Your task to perform on an android device: move an email to a new category in the gmail app Image 0: 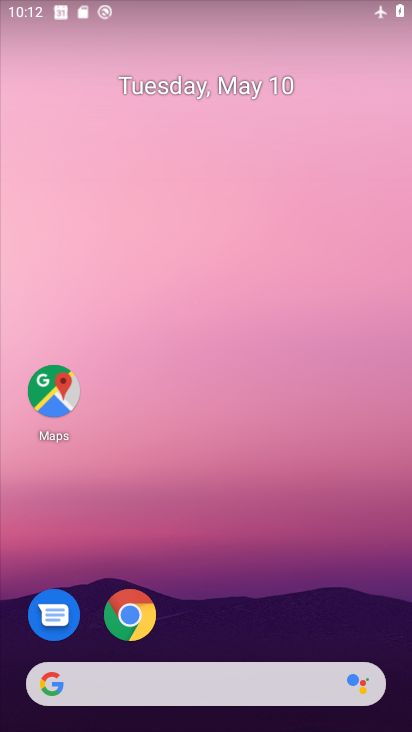
Step 0: click (200, 148)
Your task to perform on an android device: move an email to a new category in the gmail app Image 1: 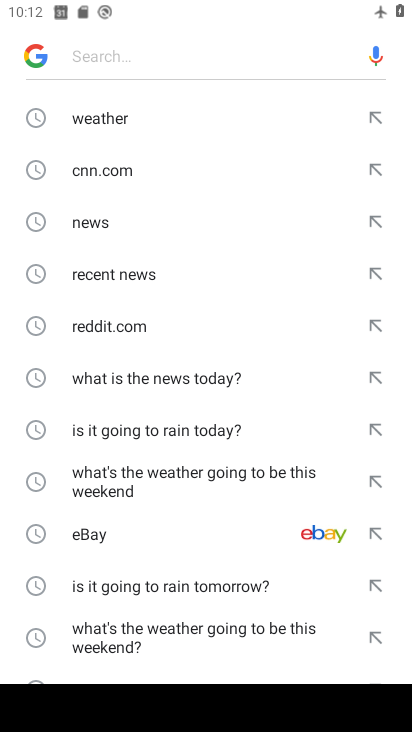
Step 1: press home button
Your task to perform on an android device: move an email to a new category in the gmail app Image 2: 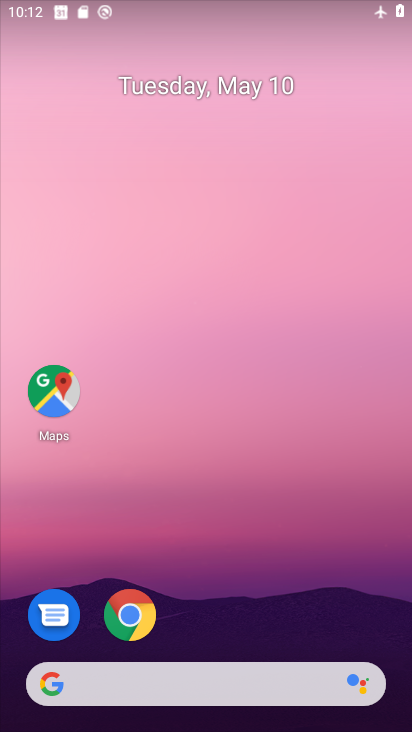
Step 2: drag from (180, 611) to (223, 328)
Your task to perform on an android device: move an email to a new category in the gmail app Image 3: 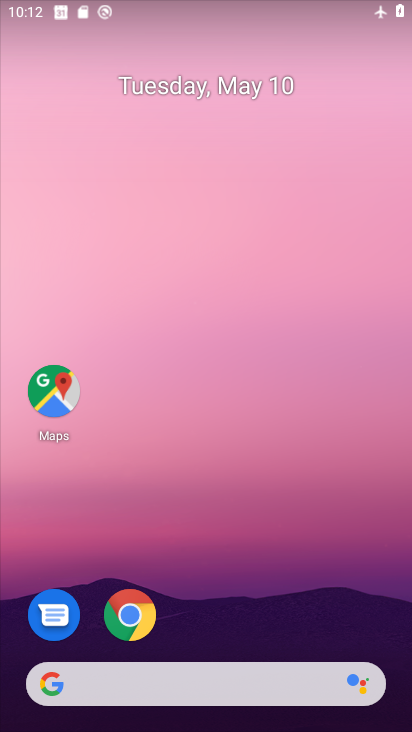
Step 3: drag from (181, 595) to (227, 202)
Your task to perform on an android device: move an email to a new category in the gmail app Image 4: 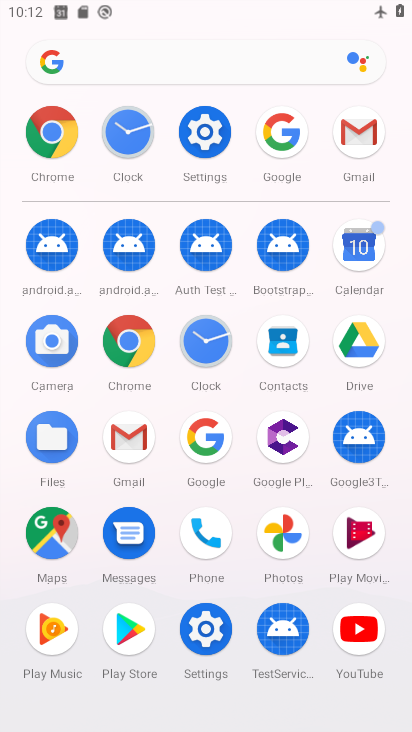
Step 4: click (131, 428)
Your task to perform on an android device: move an email to a new category in the gmail app Image 5: 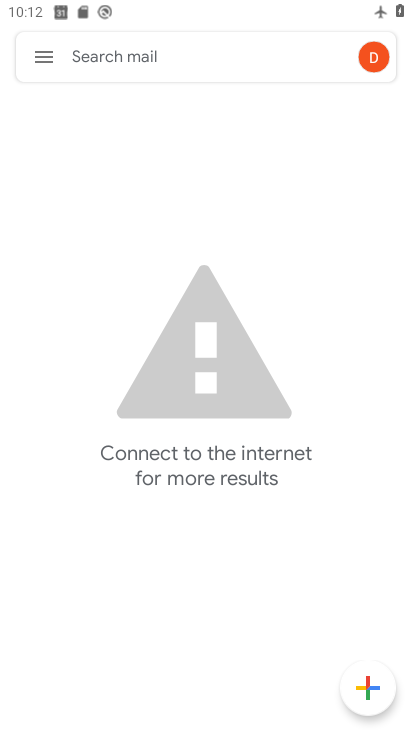
Step 5: click (42, 54)
Your task to perform on an android device: move an email to a new category in the gmail app Image 6: 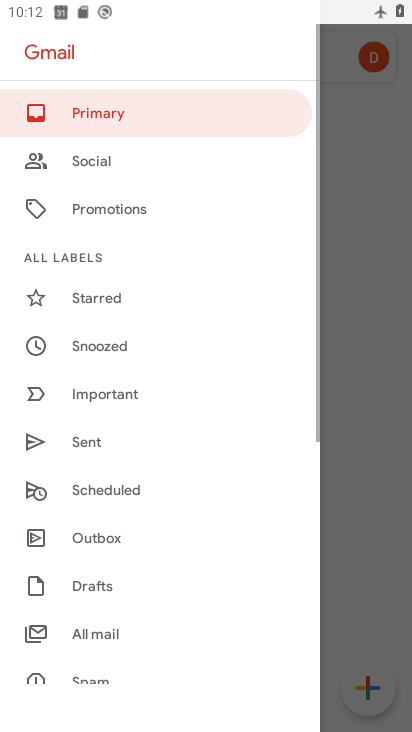
Step 6: drag from (125, 580) to (151, 184)
Your task to perform on an android device: move an email to a new category in the gmail app Image 7: 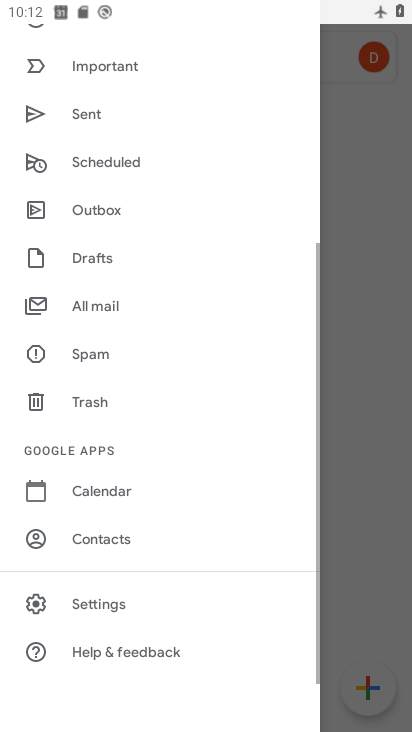
Step 7: click (96, 598)
Your task to perform on an android device: move an email to a new category in the gmail app Image 8: 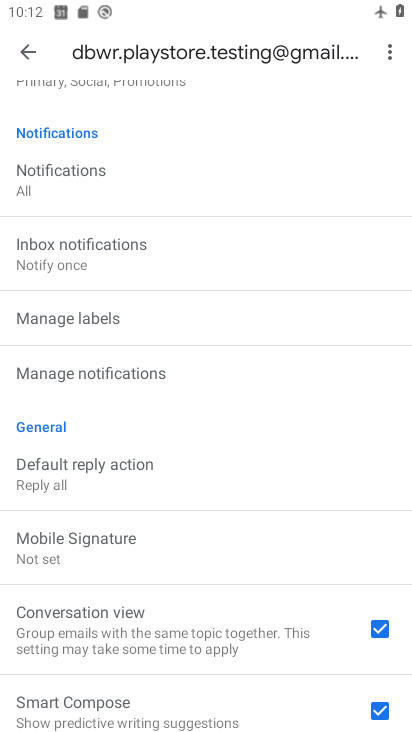
Step 8: click (29, 52)
Your task to perform on an android device: move an email to a new category in the gmail app Image 9: 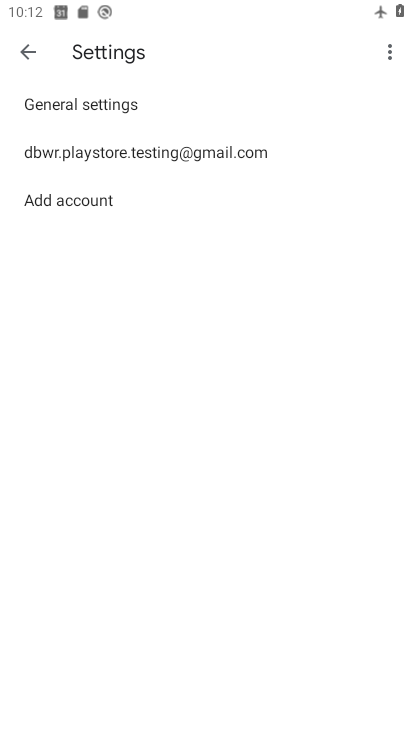
Step 9: click (29, 52)
Your task to perform on an android device: move an email to a new category in the gmail app Image 10: 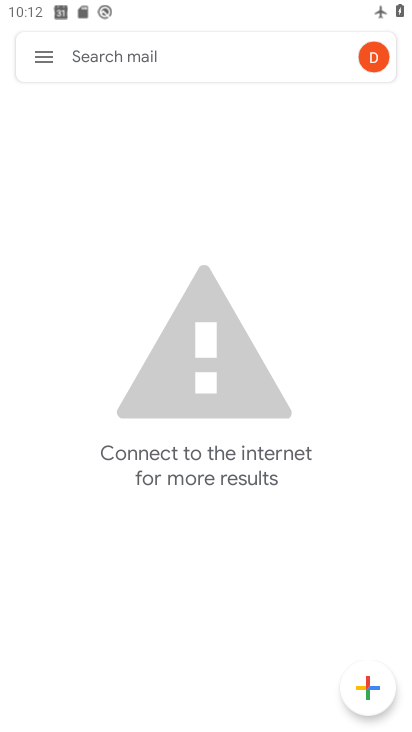
Step 10: task complete